Your task to perform on an android device: Add apple airpods to the cart on target, then select checkout. Image 0: 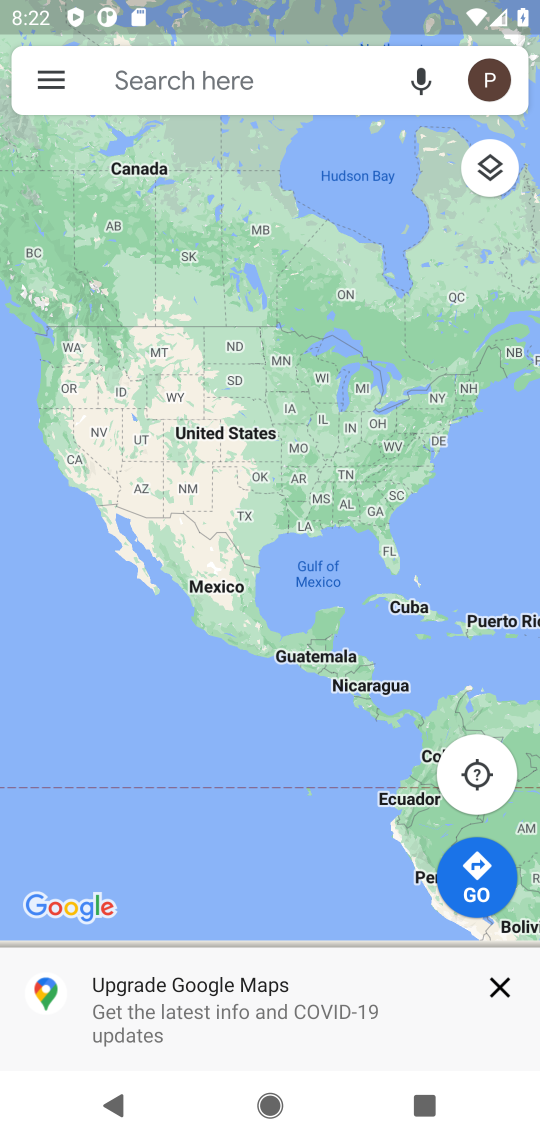
Step 0: press home button
Your task to perform on an android device: Add apple airpods to the cart on target, then select checkout. Image 1: 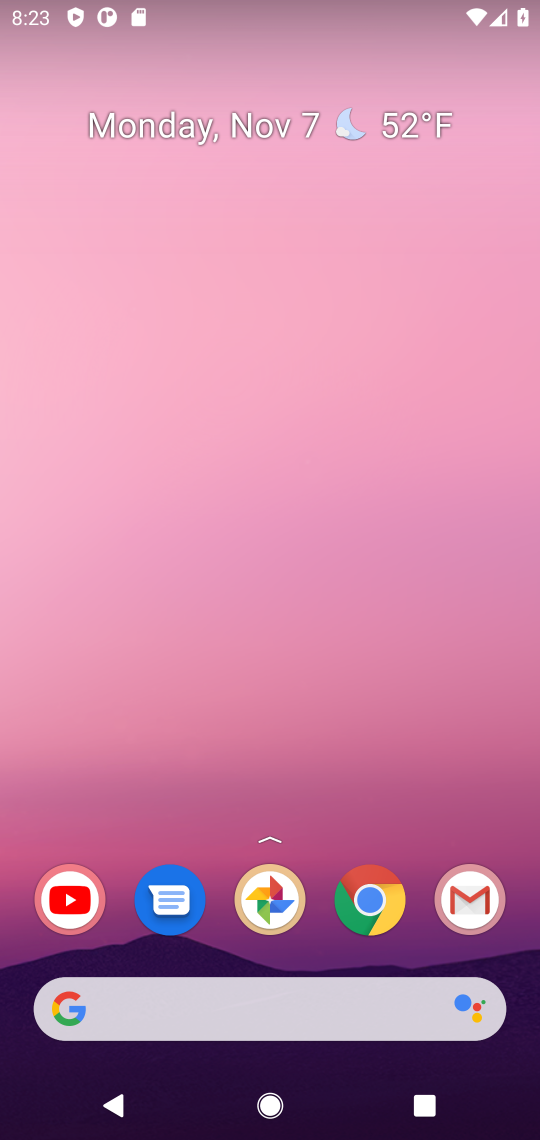
Step 1: press home button
Your task to perform on an android device: Add apple airpods to the cart on target, then select checkout. Image 2: 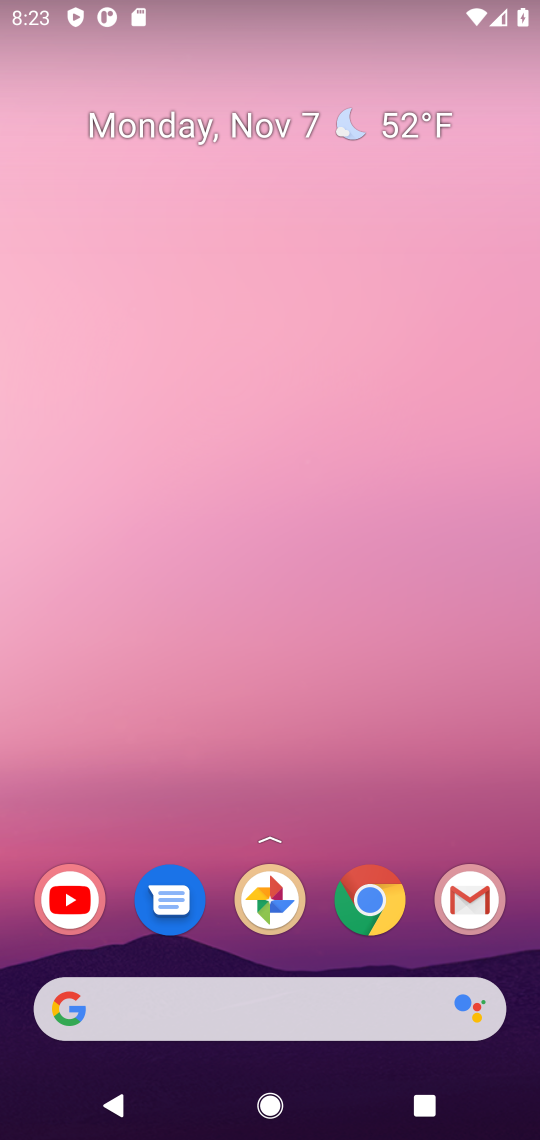
Step 2: click (203, 1012)
Your task to perform on an android device: Add apple airpods to the cart on target, then select checkout. Image 3: 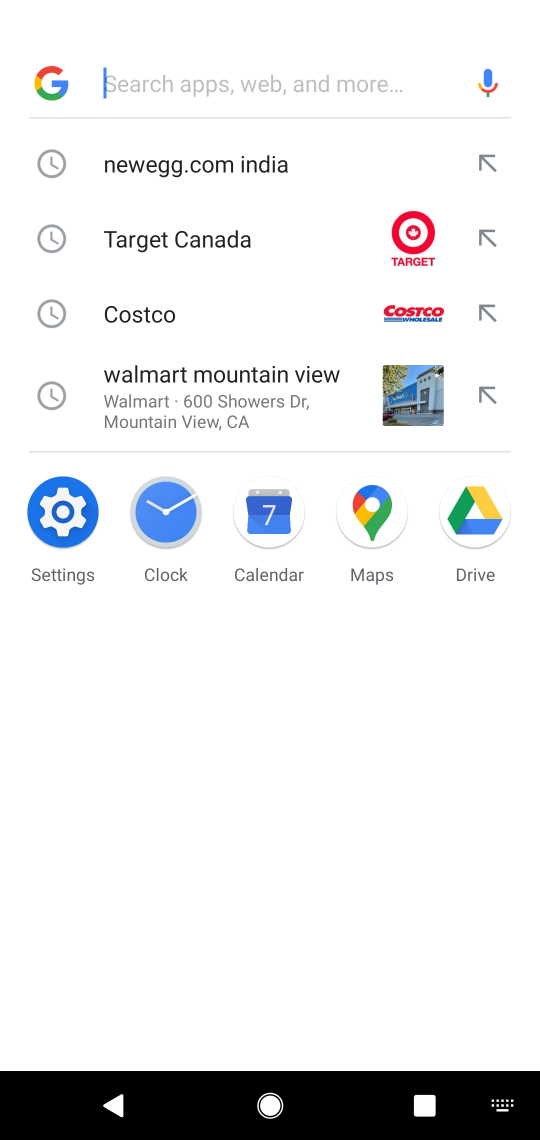
Step 3: click (171, 259)
Your task to perform on an android device: Add apple airpods to the cart on target, then select checkout. Image 4: 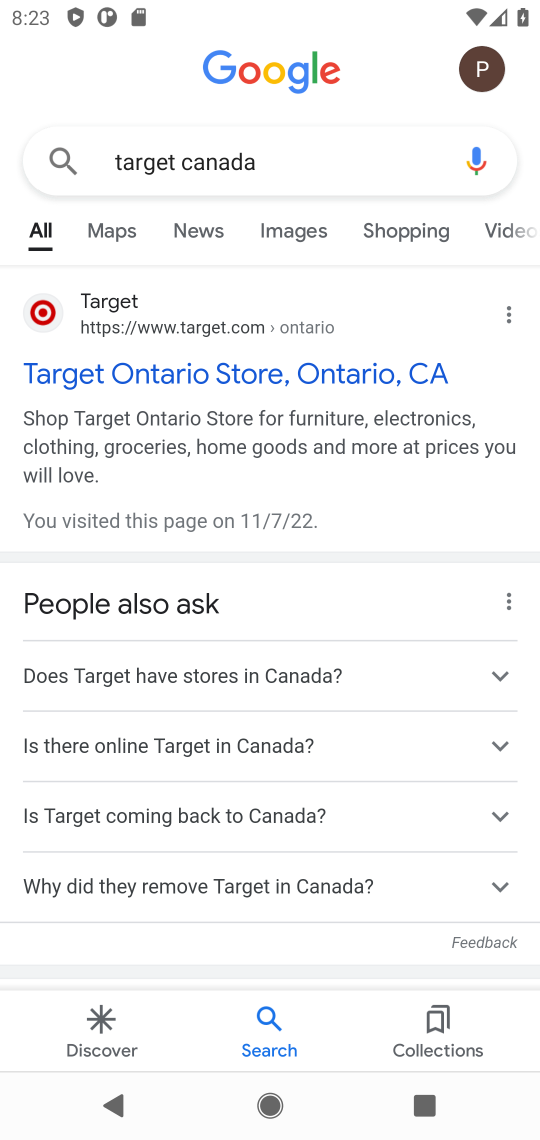
Step 4: click (198, 390)
Your task to perform on an android device: Add apple airpods to the cart on target, then select checkout. Image 5: 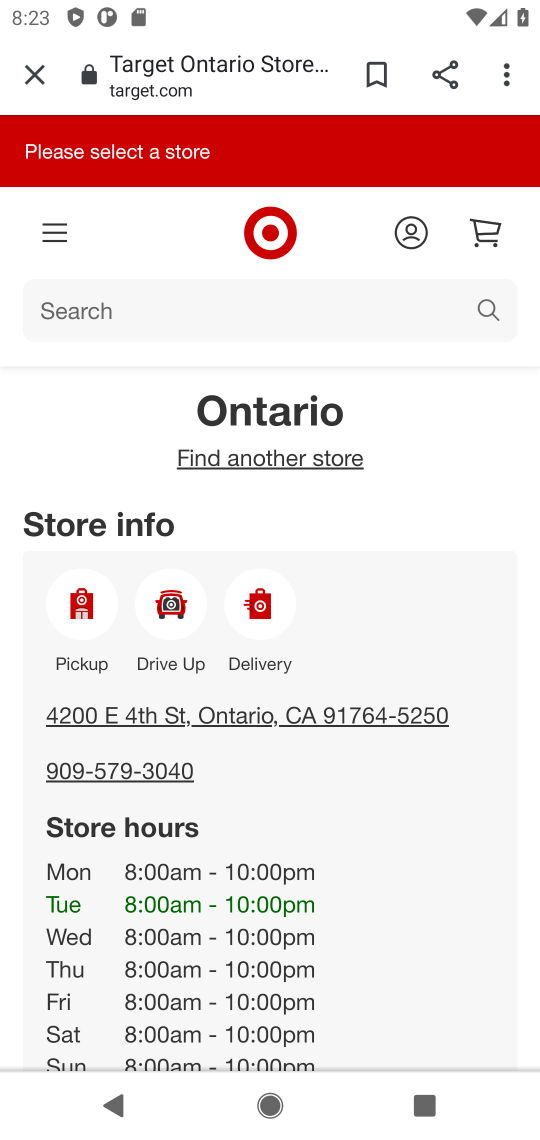
Step 5: click (490, 223)
Your task to perform on an android device: Add apple airpods to the cart on target, then select checkout. Image 6: 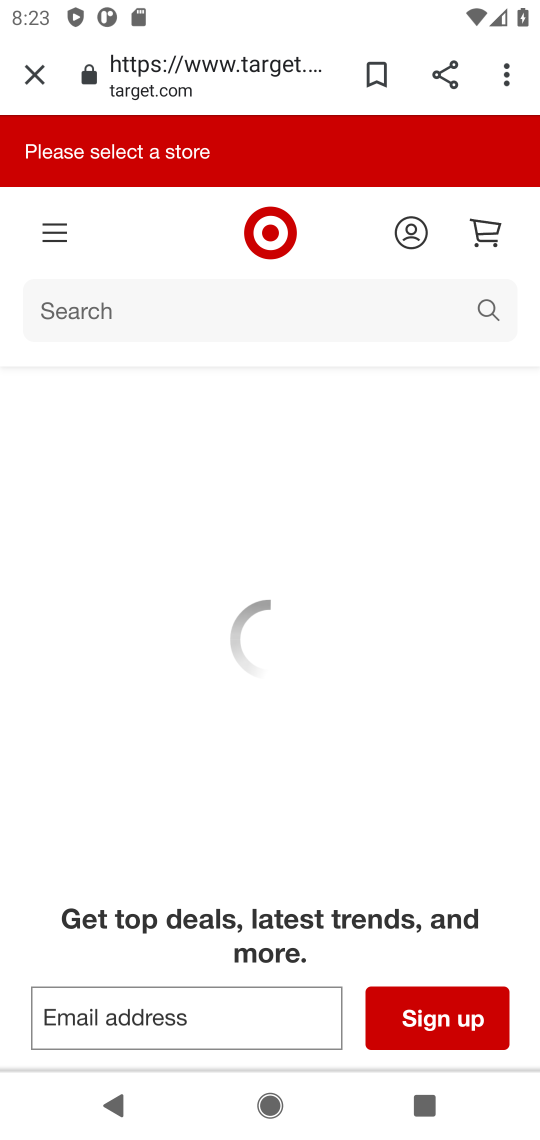
Step 6: task complete